Your task to perform on an android device: see creations saved in the google photos Image 0: 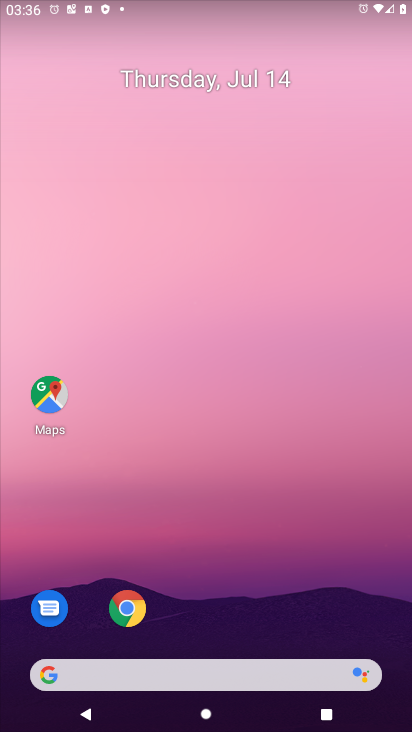
Step 0: drag from (386, 633) to (341, 94)
Your task to perform on an android device: see creations saved in the google photos Image 1: 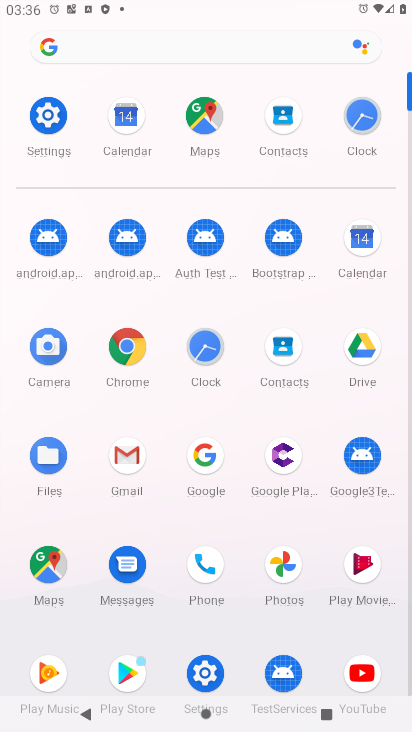
Step 1: click (283, 565)
Your task to perform on an android device: see creations saved in the google photos Image 2: 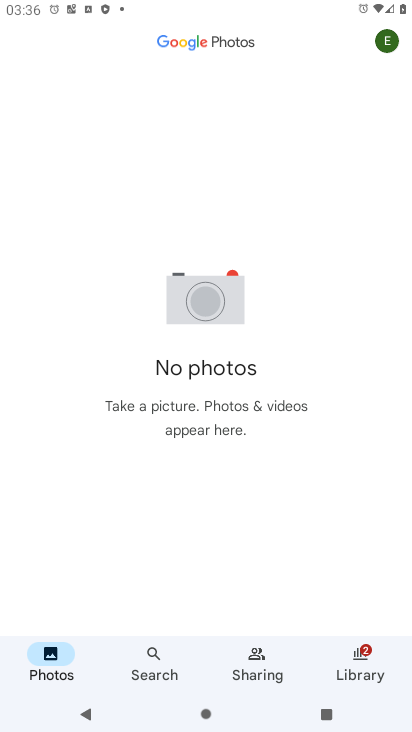
Step 2: task complete